Your task to perform on an android device: turn on data saver in the chrome app Image 0: 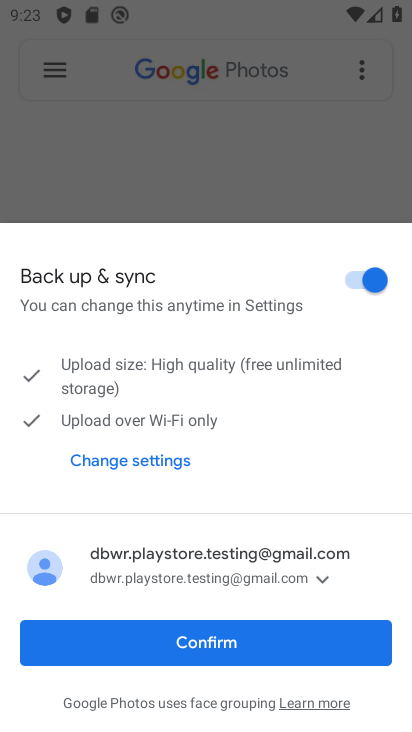
Step 0: press home button
Your task to perform on an android device: turn on data saver in the chrome app Image 1: 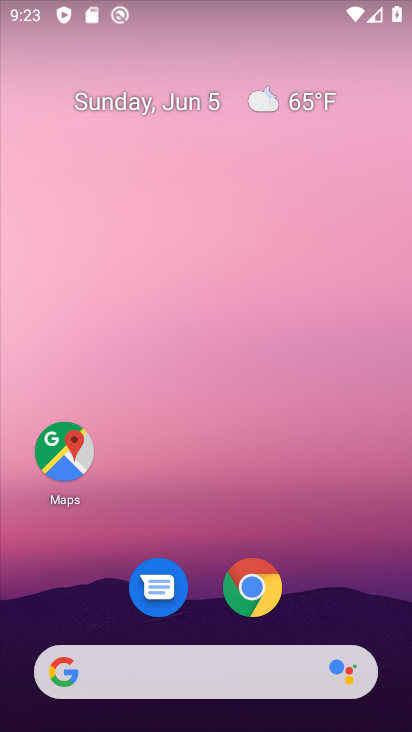
Step 1: click (261, 585)
Your task to perform on an android device: turn on data saver in the chrome app Image 2: 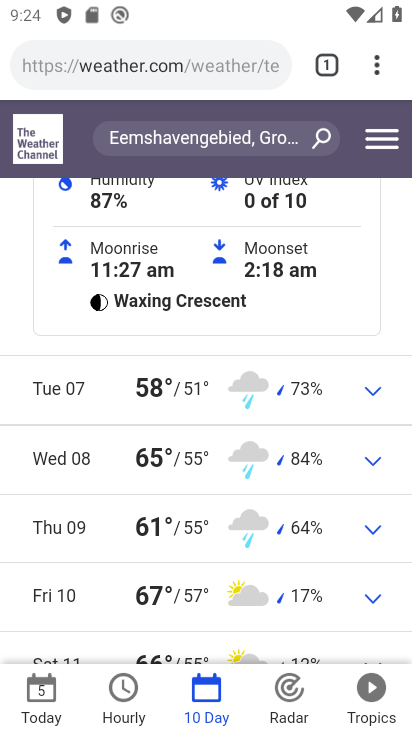
Step 2: drag from (380, 79) to (221, 634)
Your task to perform on an android device: turn on data saver in the chrome app Image 3: 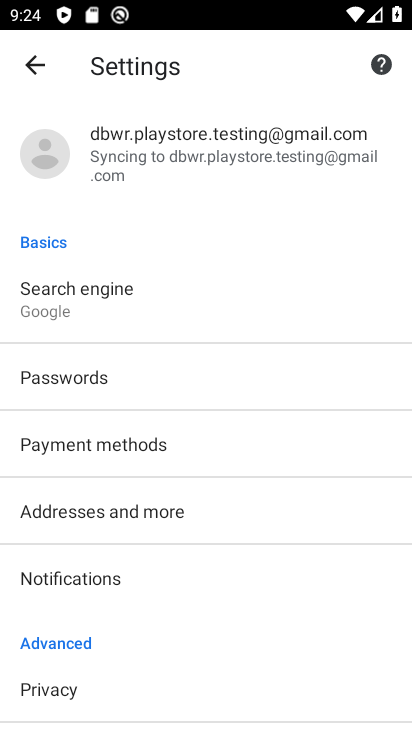
Step 3: drag from (145, 657) to (294, 254)
Your task to perform on an android device: turn on data saver in the chrome app Image 4: 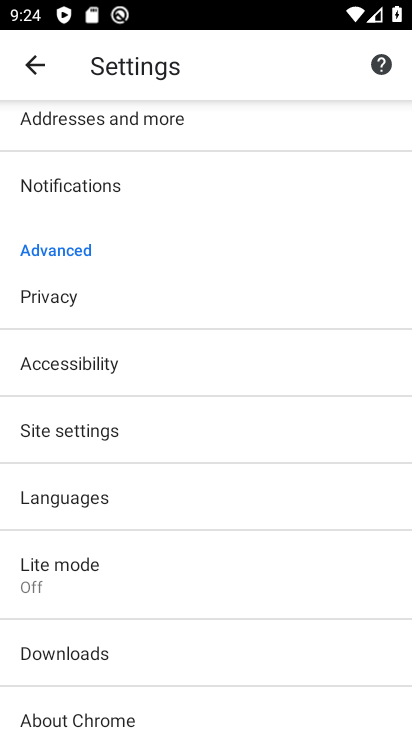
Step 4: click (179, 569)
Your task to perform on an android device: turn on data saver in the chrome app Image 5: 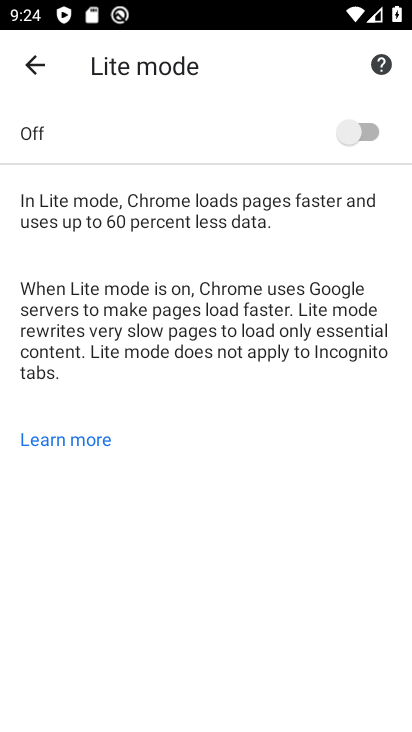
Step 5: click (387, 149)
Your task to perform on an android device: turn on data saver in the chrome app Image 6: 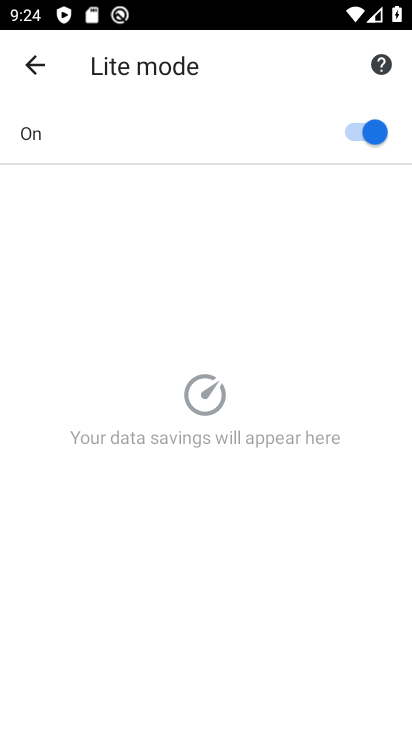
Step 6: task complete